Your task to perform on an android device: Open Yahoo.com Image 0: 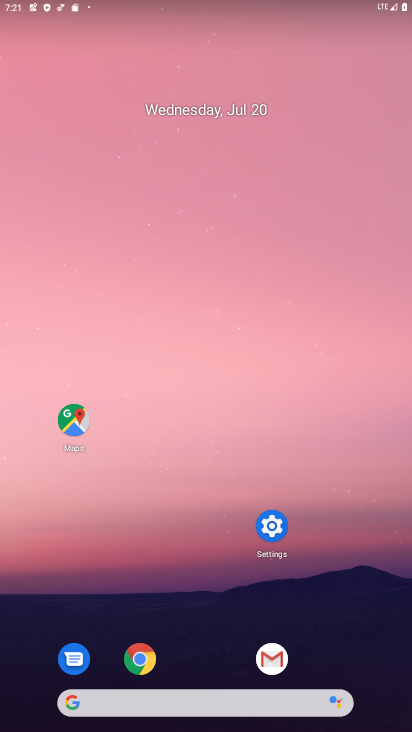
Step 0: click (138, 658)
Your task to perform on an android device: Open Yahoo.com Image 1: 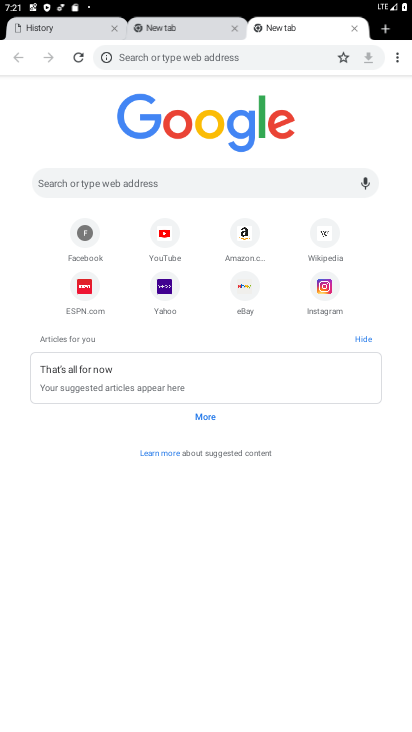
Step 1: click (155, 299)
Your task to perform on an android device: Open Yahoo.com Image 2: 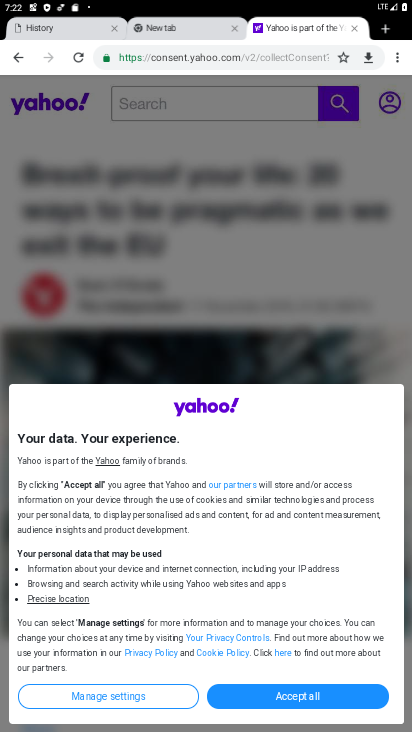
Step 2: click (263, 693)
Your task to perform on an android device: Open Yahoo.com Image 3: 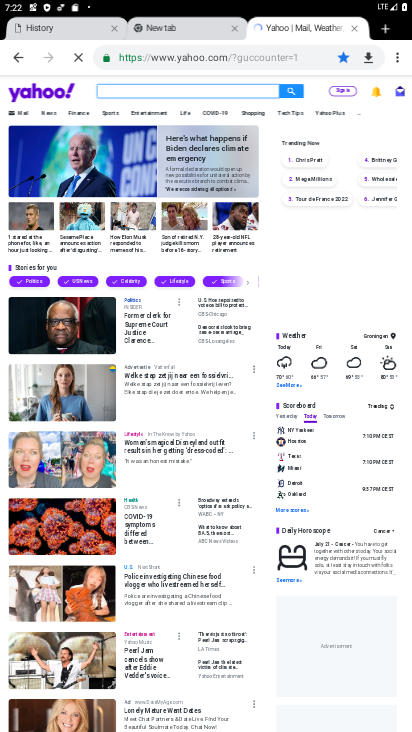
Step 3: task complete